Your task to perform on an android device: Search for Mexican restaurants on Maps Image 0: 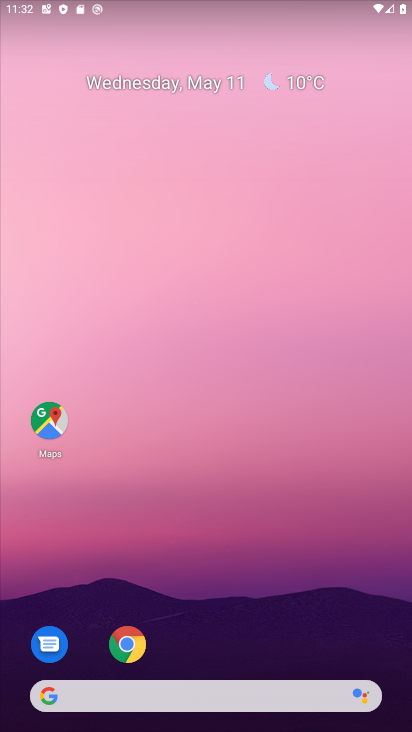
Step 0: drag from (298, 655) to (243, 82)
Your task to perform on an android device: Search for Mexican restaurants on Maps Image 1: 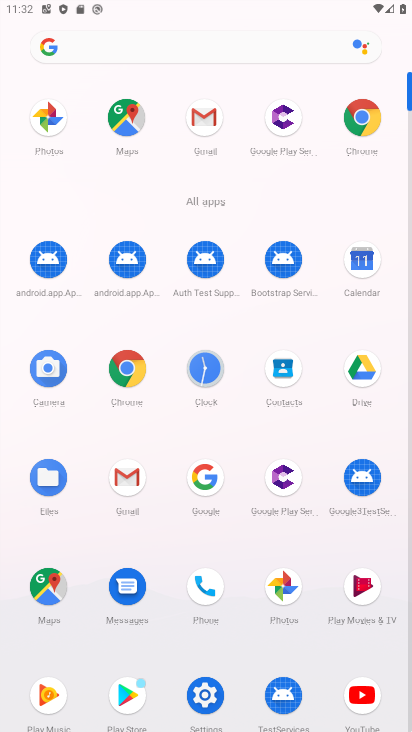
Step 1: click (127, 139)
Your task to perform on an android device: Search for Mexican restaurants on Maps Image 2: 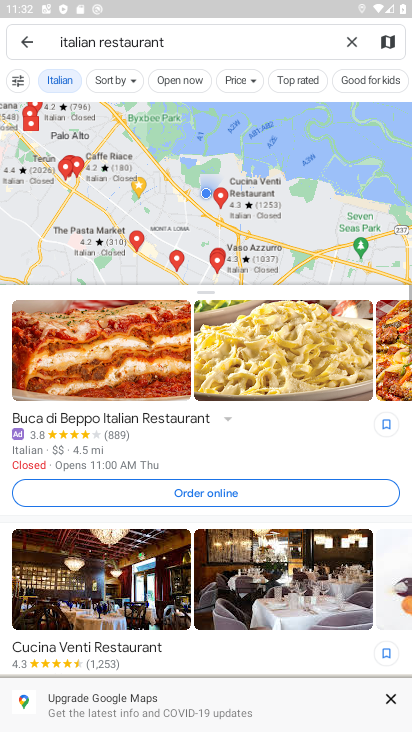
Step 2: click (354, 46)
Your task to perform on an android device: Search for Mexican restaurants on Maps Image 3: 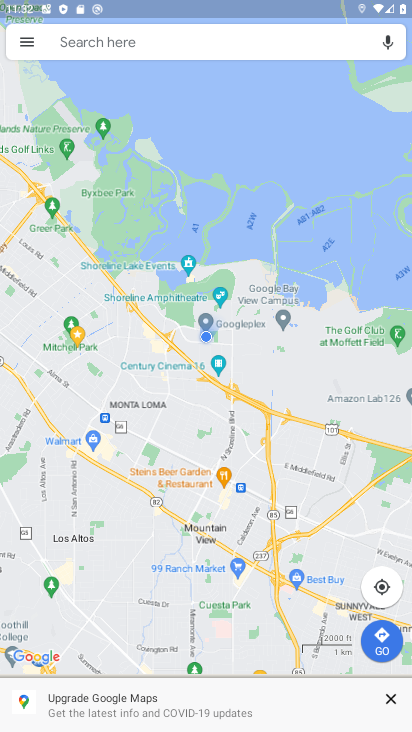
Step 3: click (202, 36)
Your task to perform on an android device: Search for Mexican restaurants on Maps Image 4: 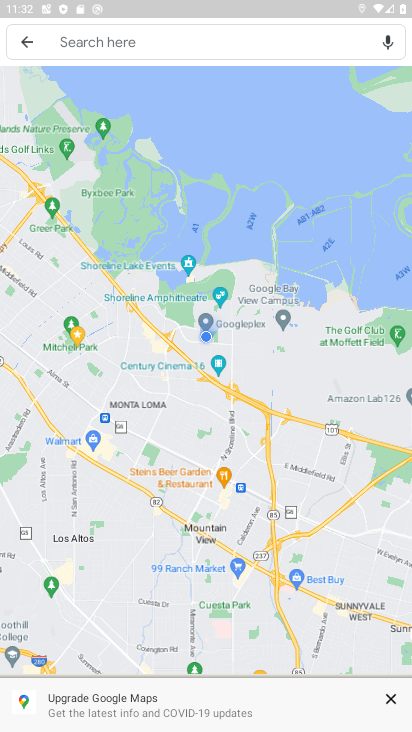
Step 4: click (202, 36)
Your task to perform on an android device: Search for Mexican restaurants on Maps Image 5: 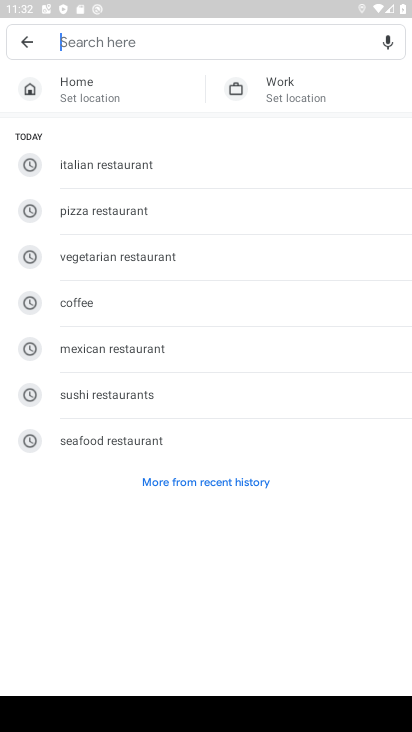
Step 5: type " Mexican restaurants "
Your task to perform on an android device: Search for Mexican restaurants on Maps Image 6: 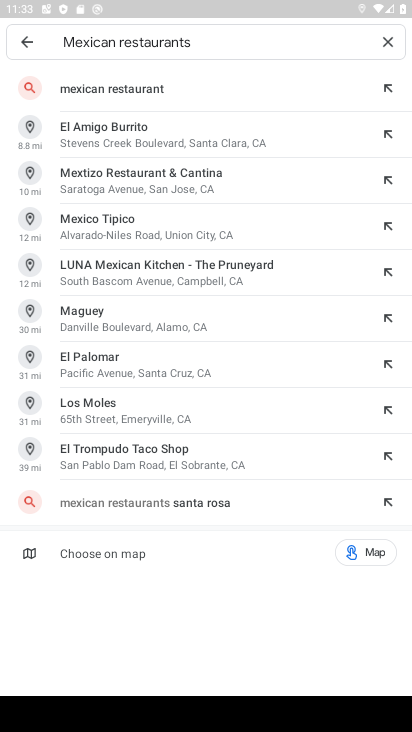
Step 6: type ";;"
Your task to perform on an android device: Search for Mexican restaurants on Maps Image 7: 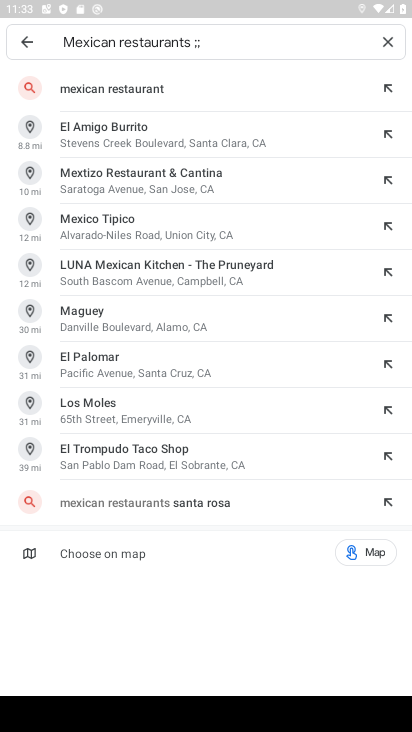
Step 7: click (305, 43)
Your task to perform on an android device: Search for Mexican restaurants on Maps Image 8: 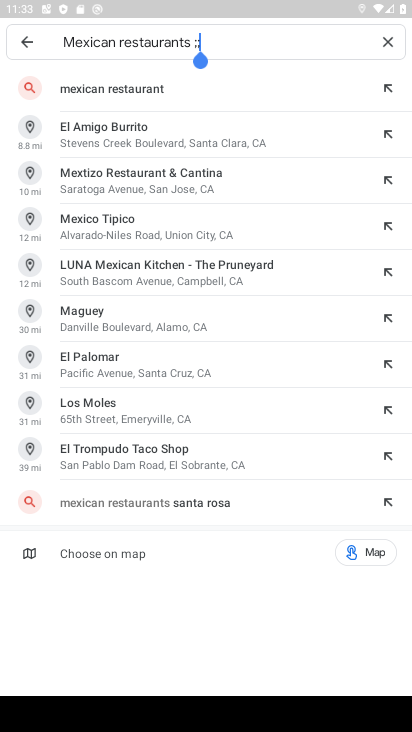
Step 8: click (390, 43)
Your task to perform on an android device: Search for Mexican restaurants on Maps Image 9: 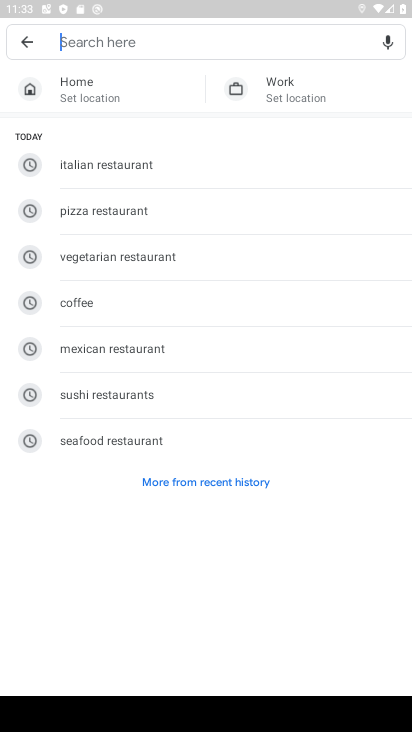
Step 9: type " Mexican restaurants"
Your task to perform on an android device: Search for Mexican restaurants on Maps Image 10: 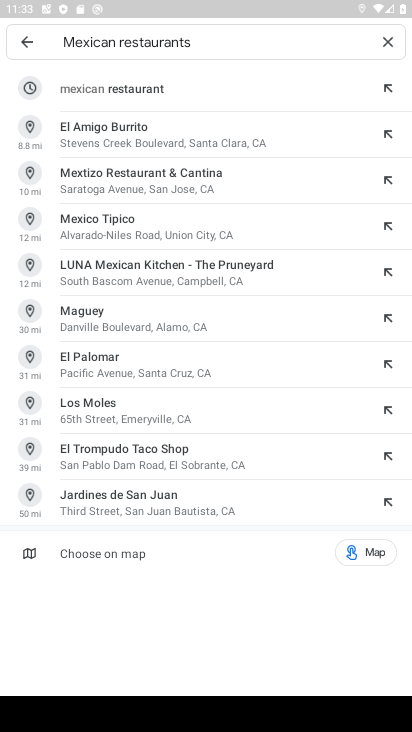
Step 10: click (278, 86)
Your task to perform on an android device: Search for Mexican restaurants on Maps Image 11: 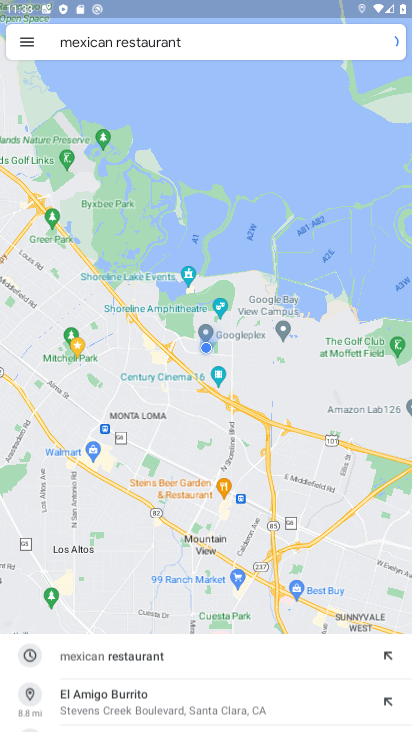
Step 11: click (278, 86)
Your task to perform on an android device: Search for Mexican restaurants on Maps Image 12: 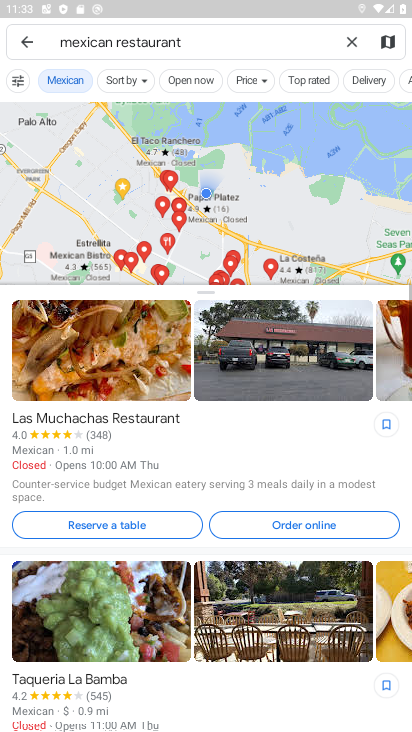
Step 12: task complete